Your task to perform on an android device: turn on translation in the chrome app Image 0: 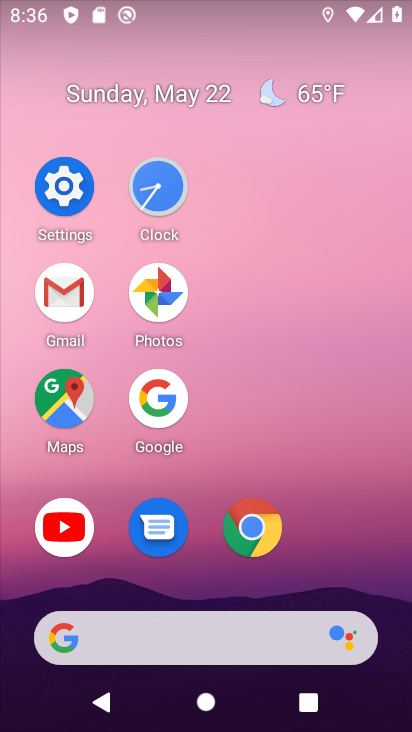
Step 0: click (251, 540)
Your task to perform on an android device: turn on translation in the chrome app Image 1: 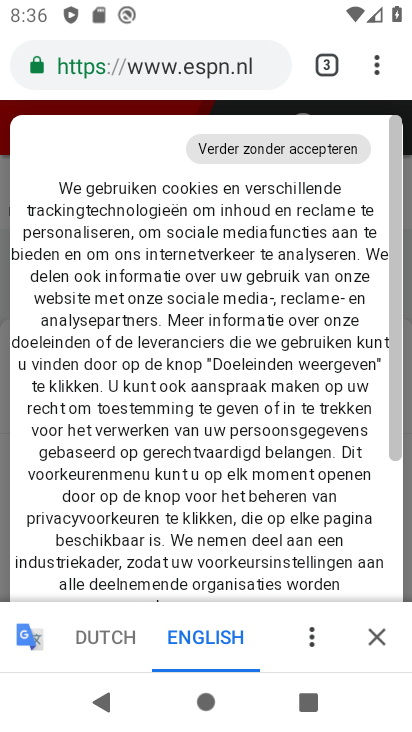
Step 1: click (389, 69)
Your task to perform on an android device: turn on translation in the chrome app Image 2: 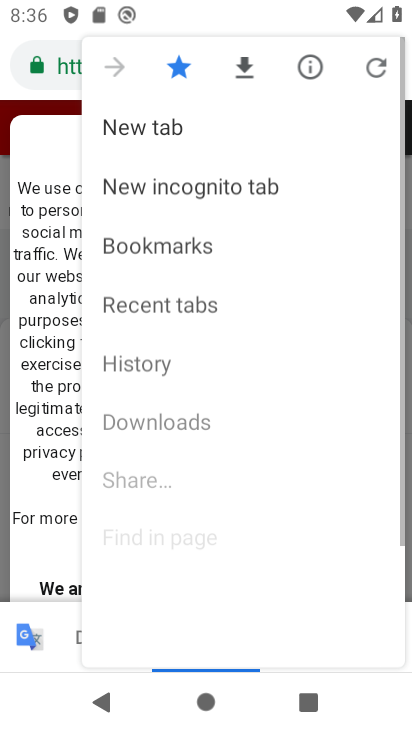
Step 2: click (367, 59)
Your task to perform on an android device: turn on translation in the chrome app Image 3: 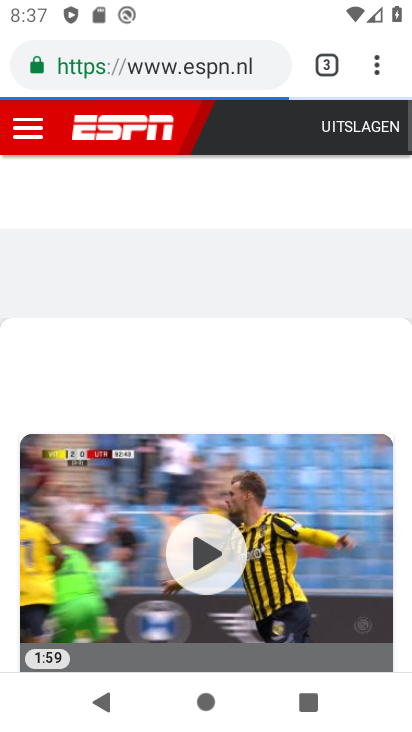
Step 3: click (376, 59)
Your task to perform on an android device: turn on translation in the chrome app Image 4: 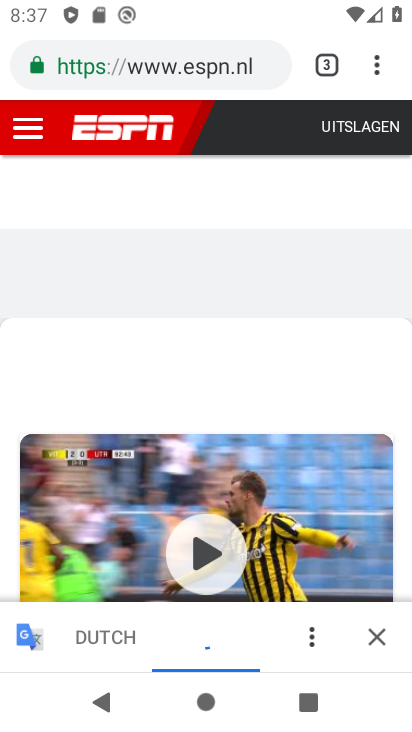
Step 4: click (383, 75)
Your task to perform on an android device: turn on translation in the chrome app Image 5: 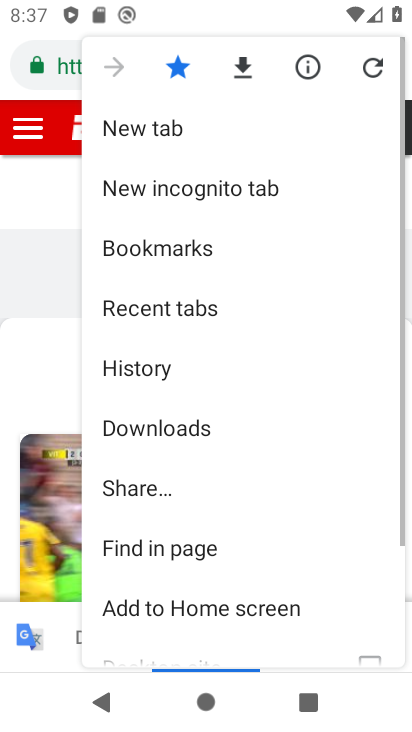
Step 5: drag from (265, 445) to (238, 30)
Your task to perform on an android device: turn on translation in the chrome app Image 6: 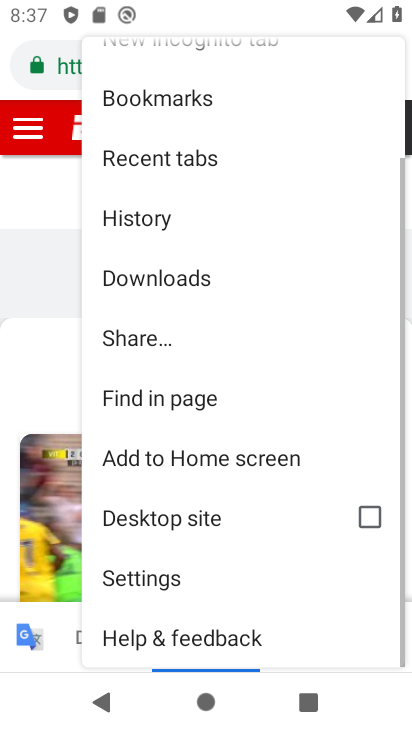
Step 6: click (195, 578)
Your task to perform on an android device: turn on translation in the chrome app Image 7: 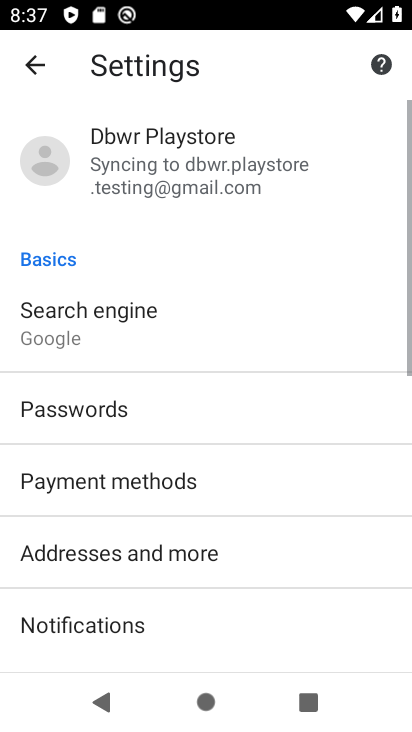
Step 7: drag from (195, 578) to (158, 83)
Your task to perform on an android device: turn on translation in the chrome app Image 8: 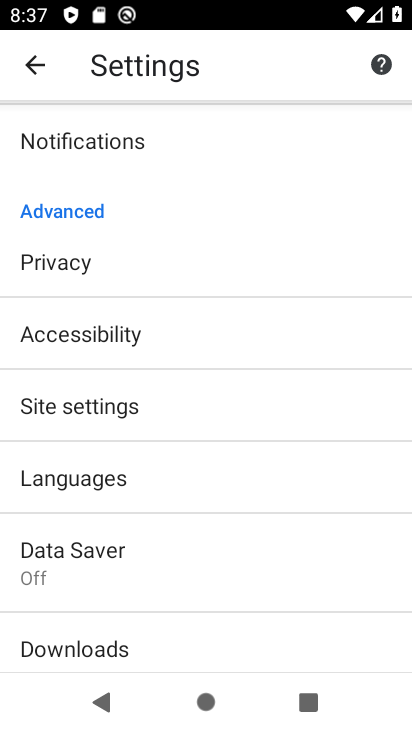
Step 8: click (157, 481)
Your task to perform on an android device: turn on translation in the chrome app Image 9: 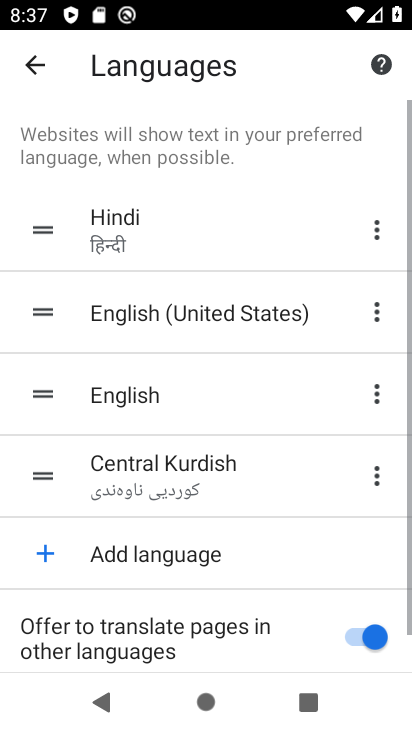
Step 9: task complete